Your task to perform on an android device: Open the Play Movies app and select the watchlist tab. Image 0: 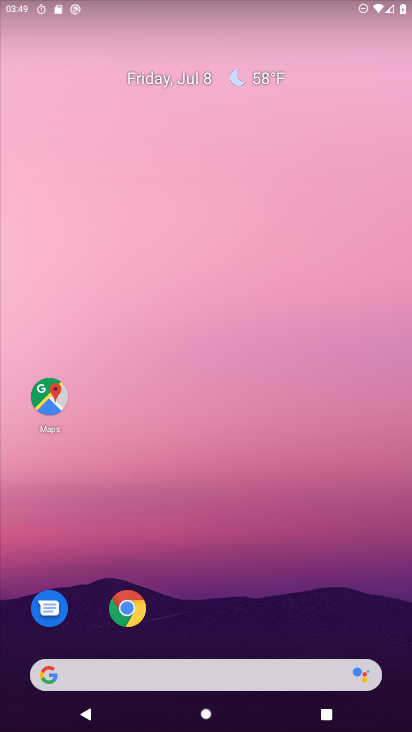
Step 0: drag from (224, 705) to (273, 128)
Your task to perform on an android device: Open the Play Movies app and select the watchlist tab. Image 1: 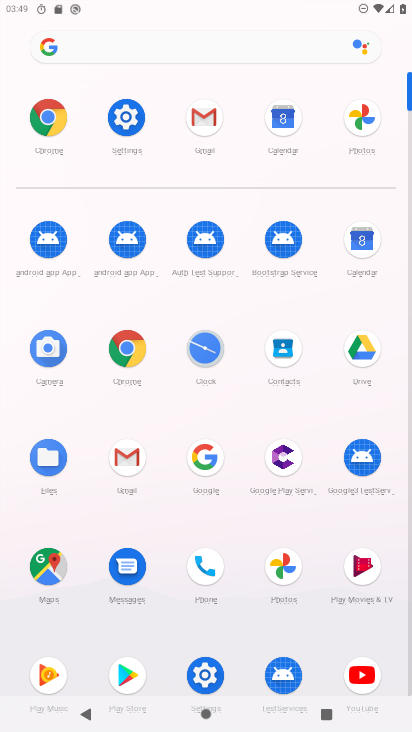
Step 1: click (359, 565)
Your task to perform on an android device: Open the Play Movies app and select the watchlist tab. Image 2: 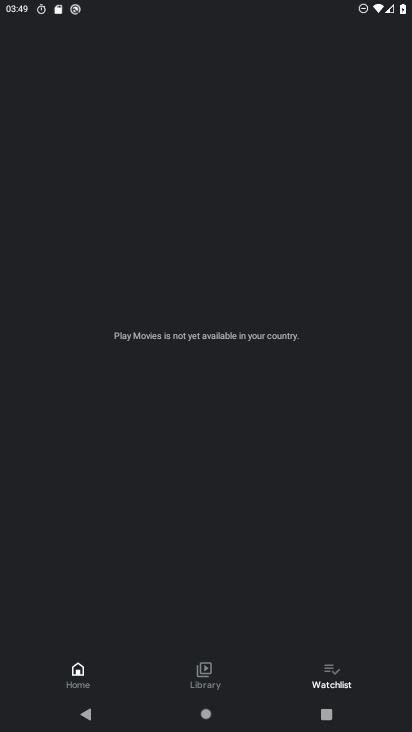
Step 2: task complete